Your task to perform on an android device: toggle pop-ups in chrome Image 0: 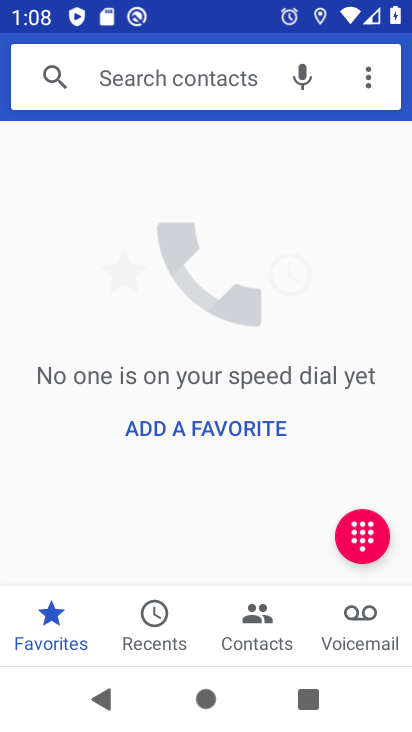
Step 0: press home button
Your task to perform on an android device: toggle pop-ups in chrome Image 1: 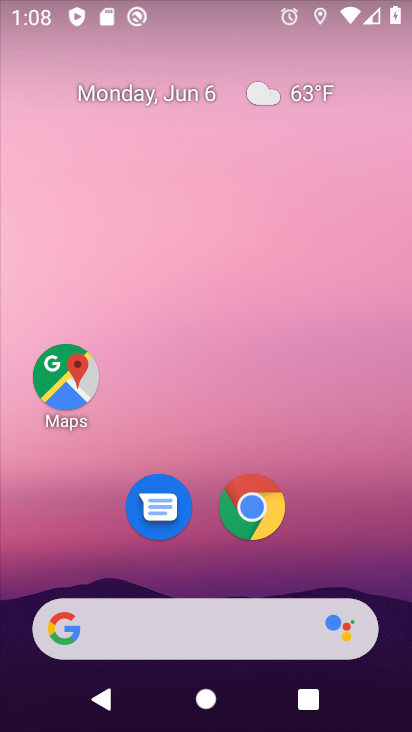
Step 1: click (263, 498)
Your task to perform on an android device: toggle pop-ups in chrome Image 2: 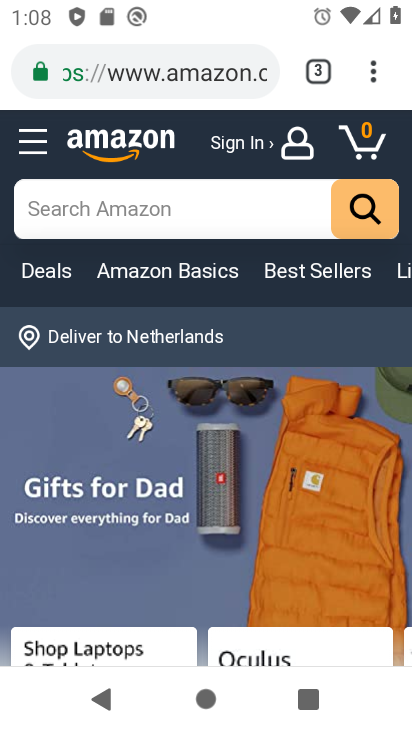
Step 2: click (370, 76)
Your task to perform on an android device: toggle pop-ups in chrome Image 3: 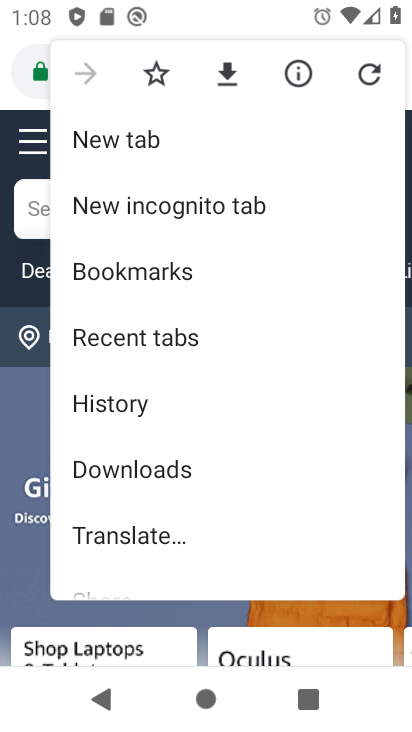
Step 3: drag from (204, 468) to (202, 72)
Your task to perform on an android device: toggle pop-ups in chrome Image 4: 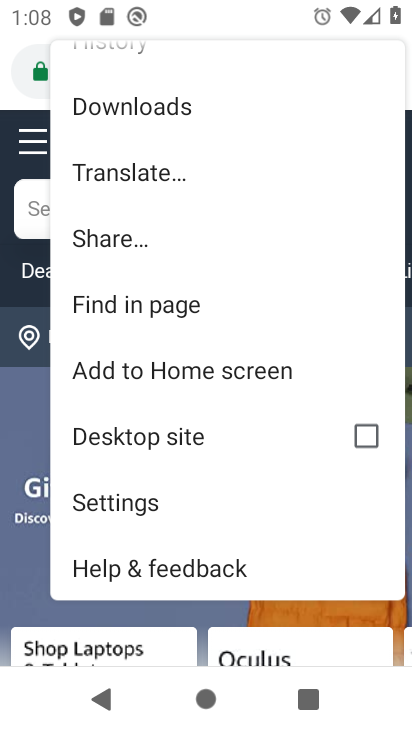
Step 4: click (191, 495)
Your task to perform on an android device: toggle pop-ups in chrome Image 5: 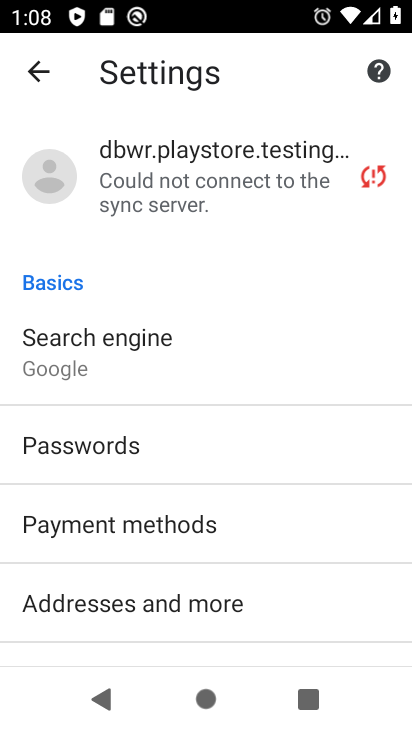
Step 5: drag from (233, 439) to (275, 67)
Your task to perform on an android device: toggle pop-ups in chrome Image 6: 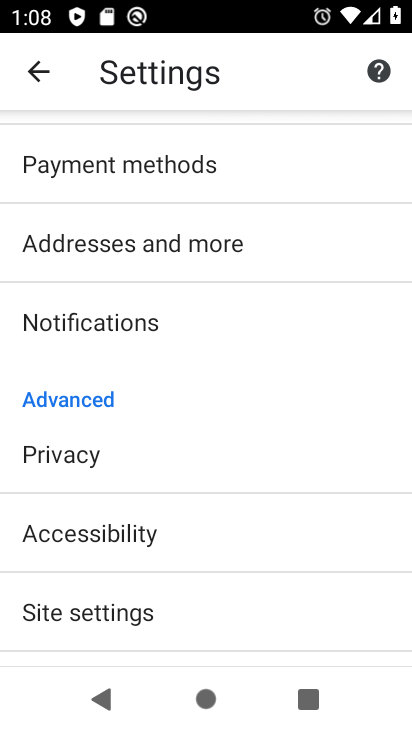
Step 6: click (233, 616)
Your task to perform on an android device: toggle pop-ups in chrome Image 7: 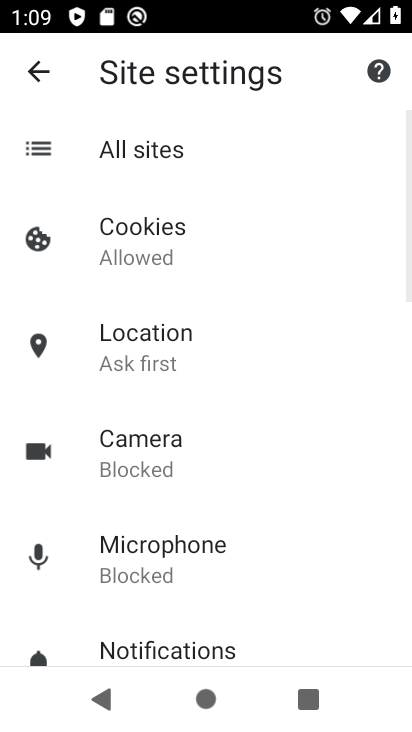
Step 7: drag from (230, 618) to (223, 150)
Your task to perform on an android device: toggle pop-ups in chrome Image 8: 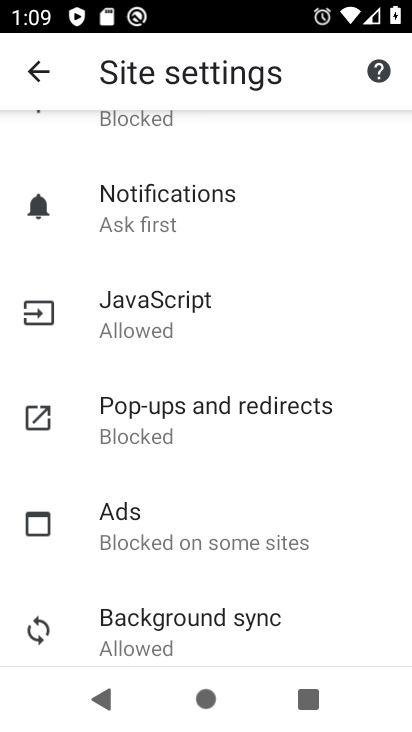
Step 8: click (246, 424)
Your task to perform on an android device: toggle pop-ups in chrome Image 9: 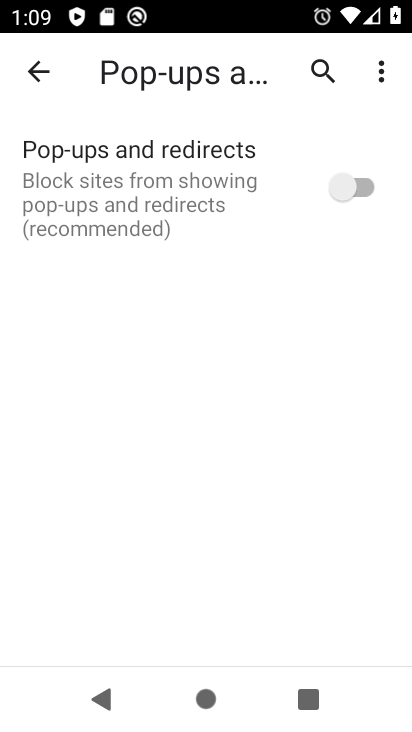
Step 9: click (360, 175)
Your task to perform on an android device: toggle pop-ups in chrome Image 10: 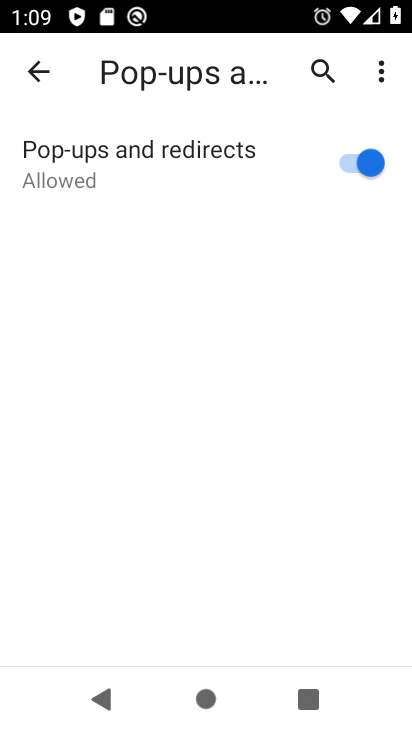
Step 10: task complete